Your task to perform on an android device: View the shopping cart on newegg. Add bose soundsport free to the cart on newegg Image 0: 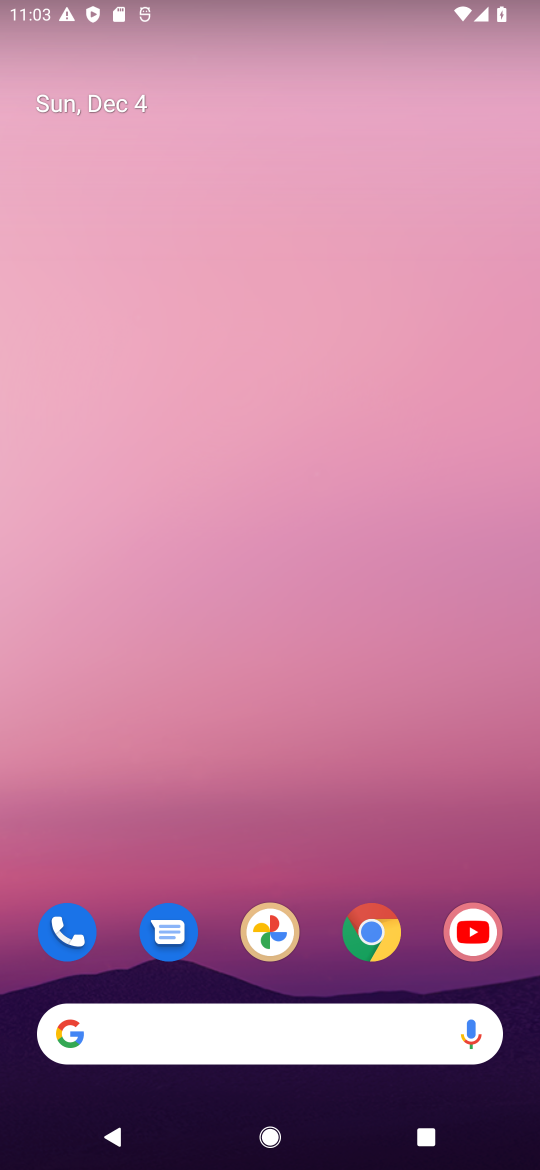
Step 0: click (375, 929)
Your task to perform on an android device: View the shopping cart on newegg. Add bose soundsport free to the cart on newegg Image 1: 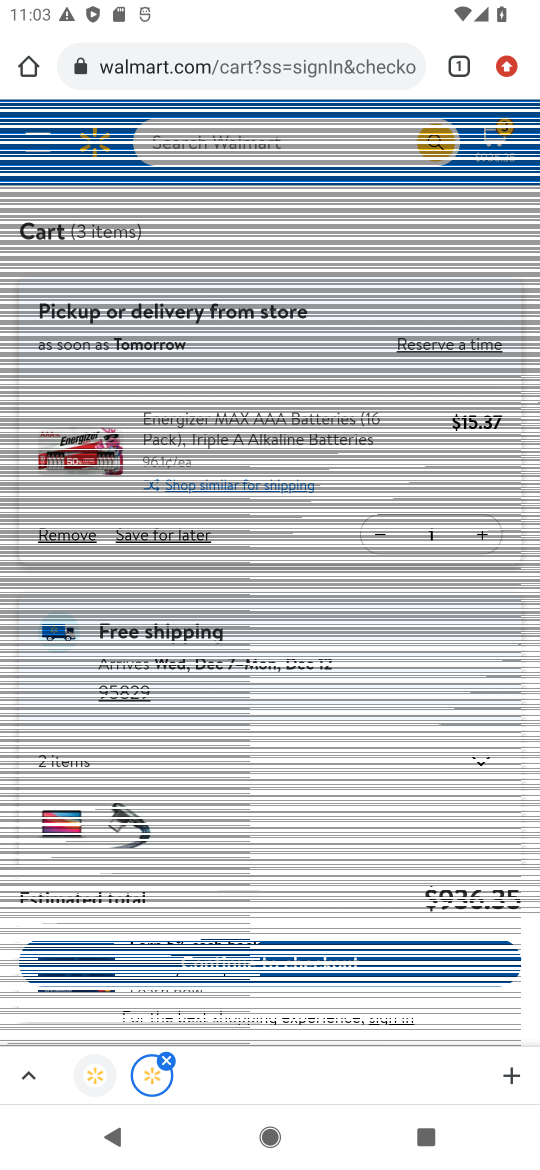
Step 1: click (240, 69)
Your task to perform on an android device: View the shopping cart on newegg. Add bose soundsport free to the cart on newegg Image 2: 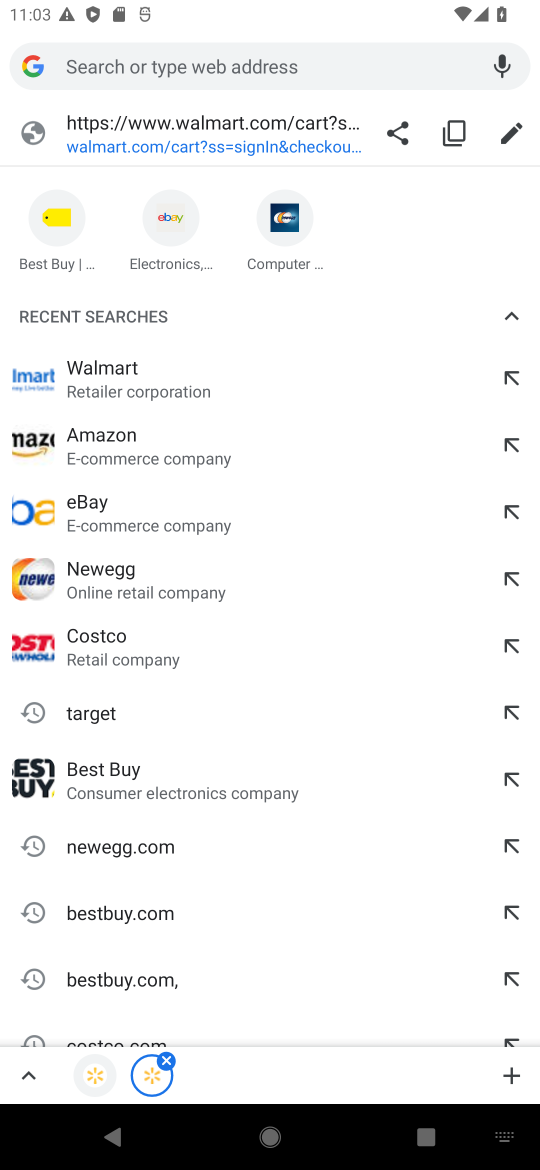
Step 2: click (155, 580)
Your task to perform on an android device: View the shopping cart on newegg. Add bose soundsport free to the cart on newegg Image 3: 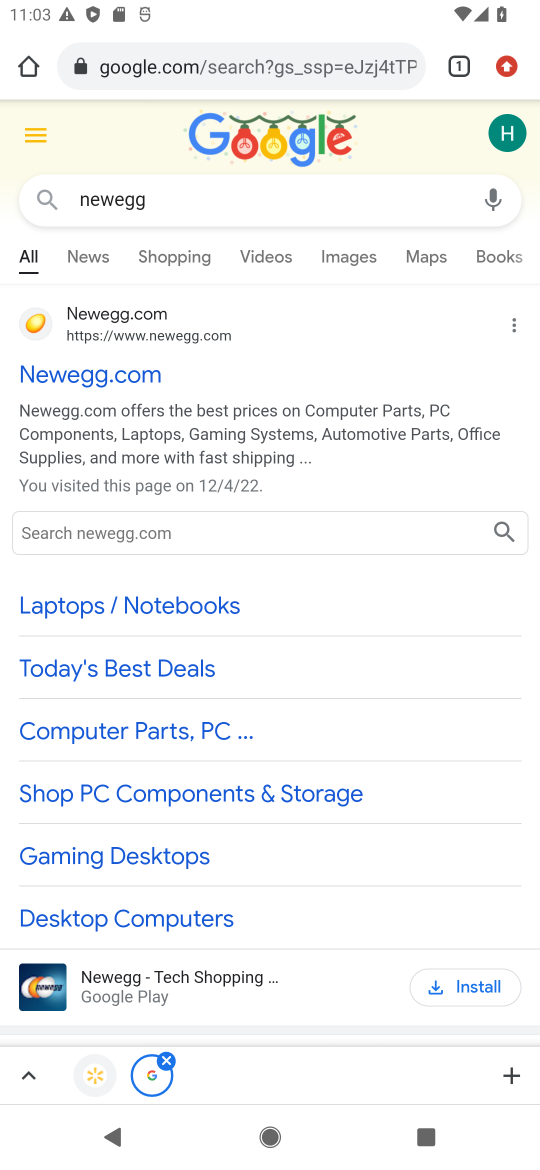
Step 3: click (68, 380)
Your task to perform on an android device: View the shopping cart on newegg. Add bose soundsport free to the cart on newegg Image 4: 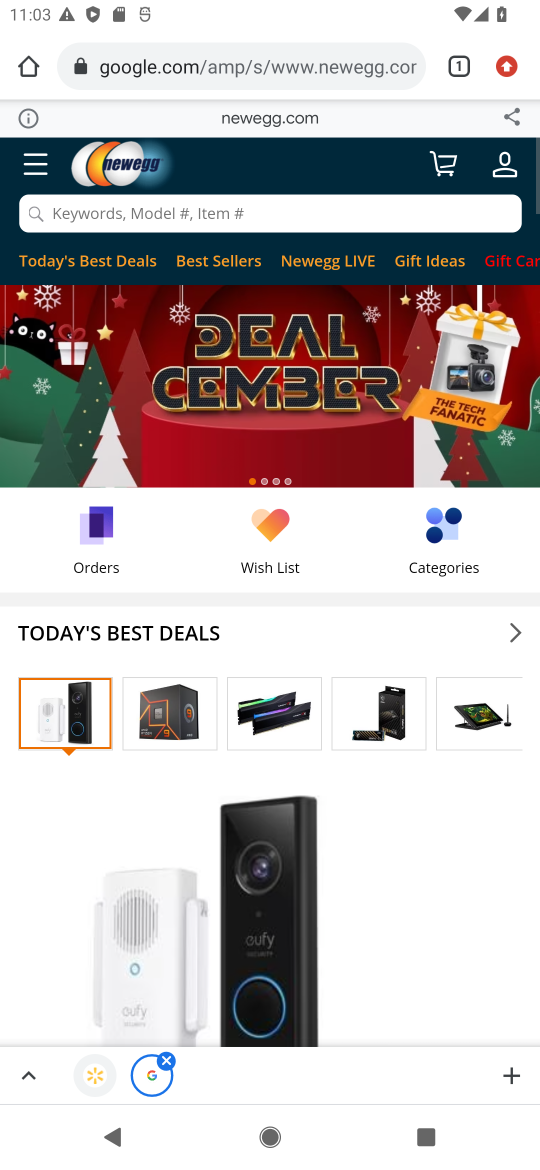
Step 4: click (202, 208)
Your task to perform on an android device: View the shopping cart on newegg. Add bose soundsport free to the cart on newegg Image 5: 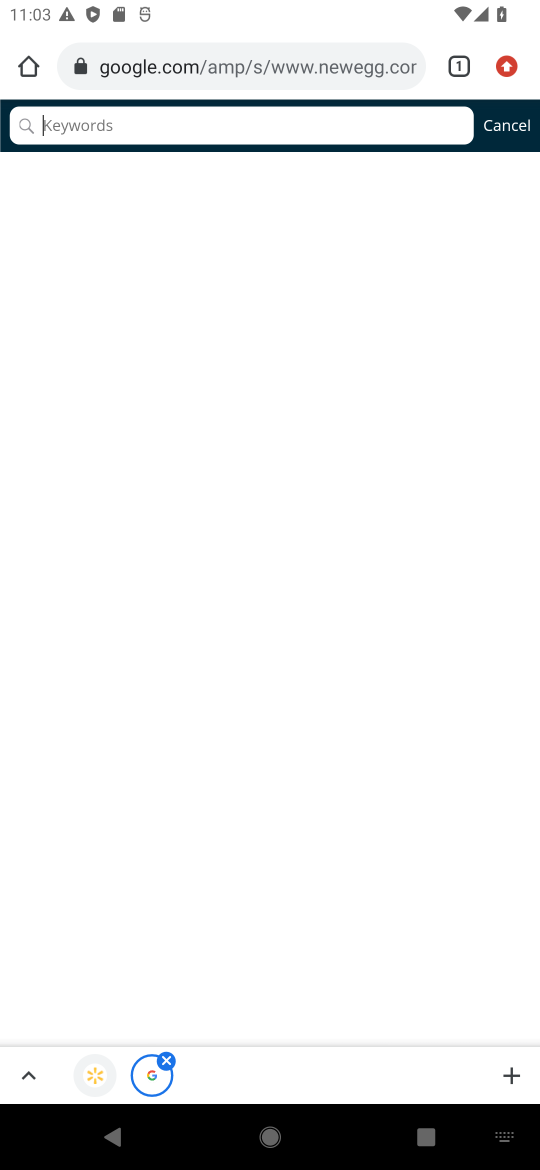
Step 5: type "bose soundsport"
Your task to perform on an android device: View the shopping cart on newegg. Add bose soundsport free to the cart on newegg Image 6: 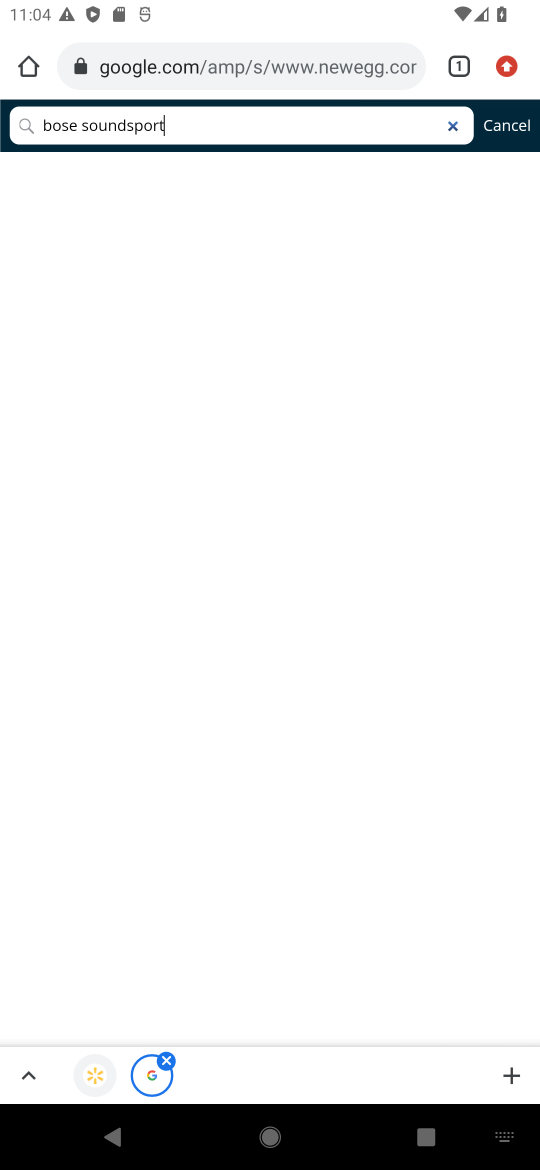
Step 6: task complete